Your task to perform on an android device: Open the calendar app, open the side menu, and click the "Day" option Image 0: 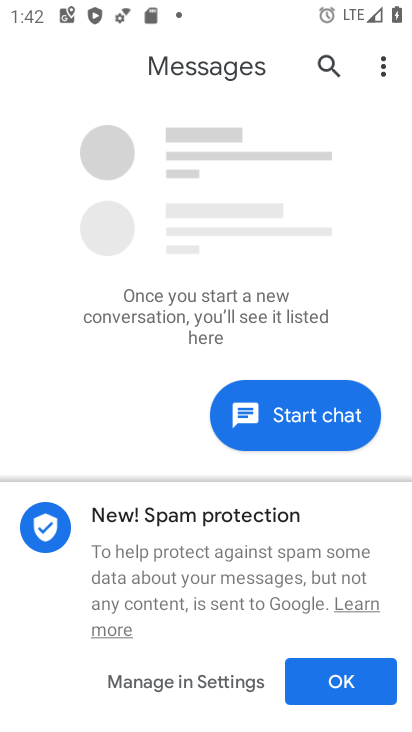
Step 0: press home button
Your task to perform on an android device: Open the calendar app, open the side menu, and click the "Day" option Image 1: 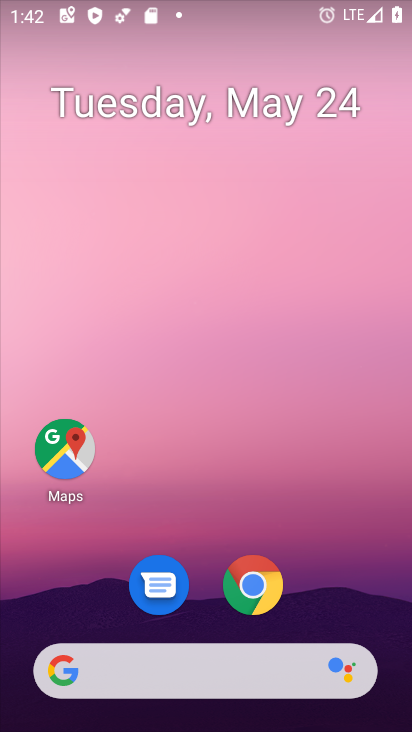
Step 1: drag from (210, 489) to (224, 50)
Your task to perform on an android device: Open the calendar app, open the side menu, and click the "Day" option Image 2: 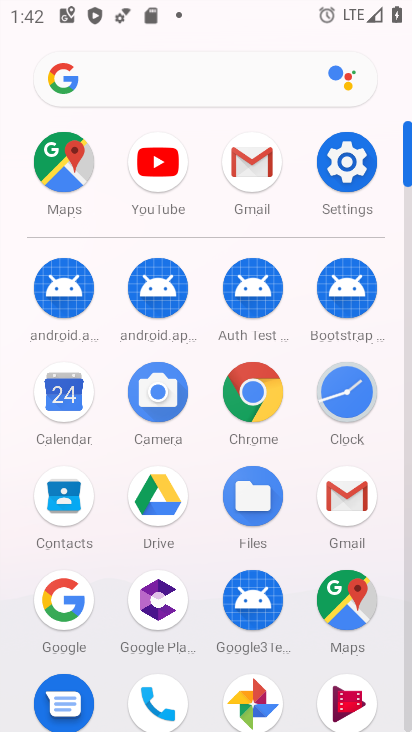
Step 2: click (78, 388)
Your task to perform on an android device: Open the calendar app, open the side menu, and click the "Day" option Image 3: 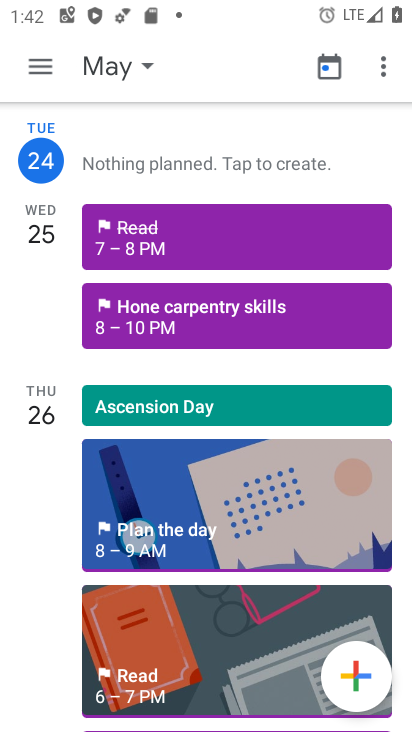
Step 3: click (34, 63)
Your task to perform on an android device: Open the calendar app, open the side menu, and click the "Day" option Image 4: 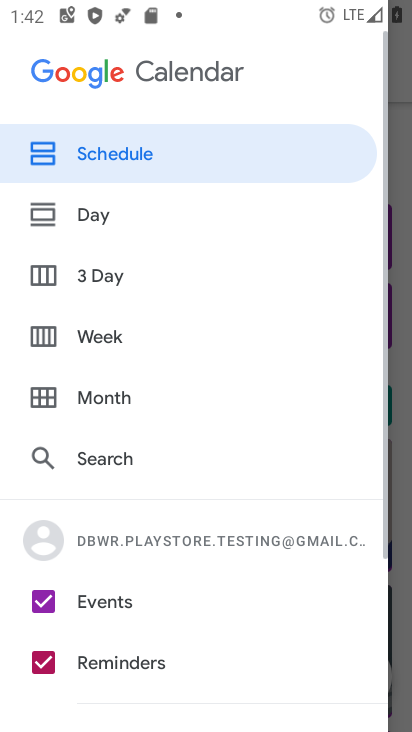
Step 4: click (56, 212)
Your task to perform on an android device: Open the calendar app, open the side menu, and click the "Day" option Image 5: 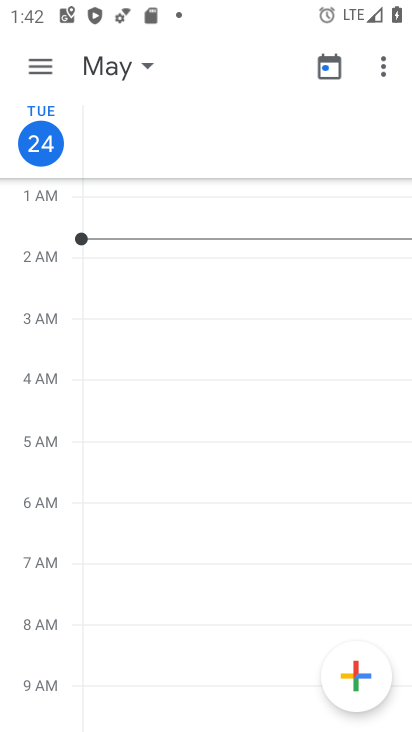
Step 5: task complete